Your task to perform on an android device: Do I have any events tomorrow? Image 0: 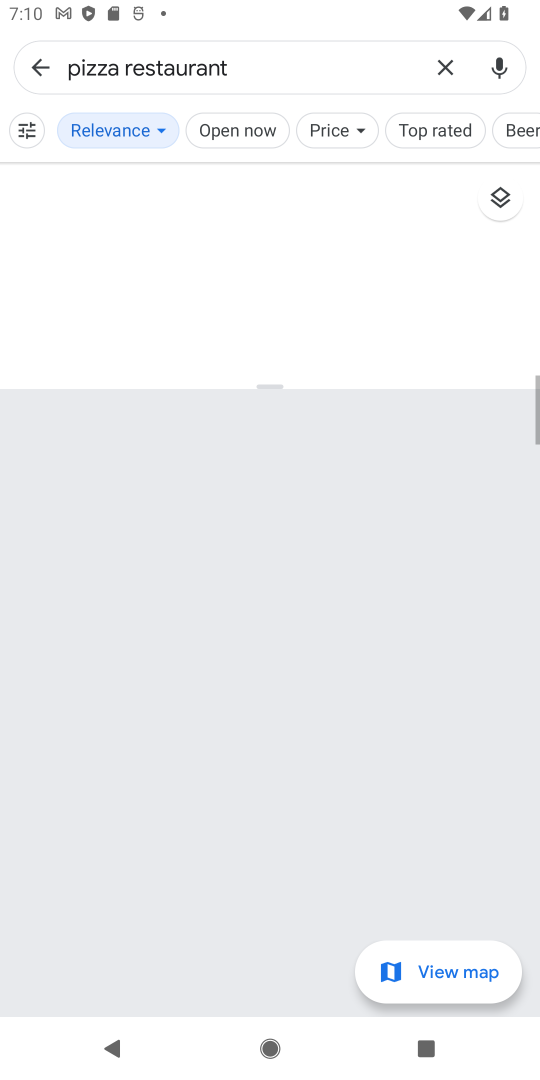
Step 0: press home button
Your task to perform on an android device: Do I have any events tomorrow? Image 1: 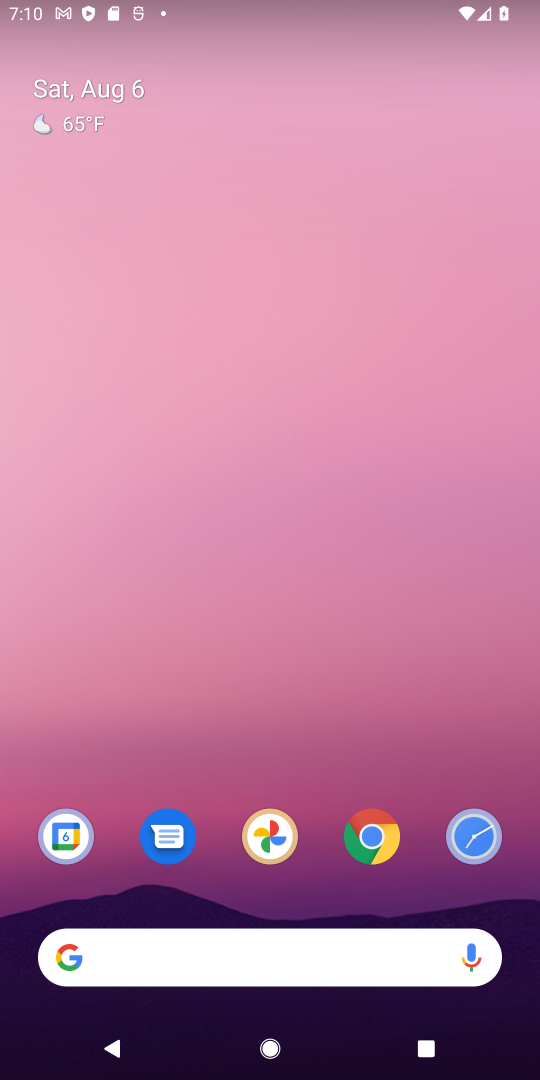
Step 1: drag from (448, 889) to (249, 255)
Your task to perform on an android device: Do I have any events tomorrow? Image 2: 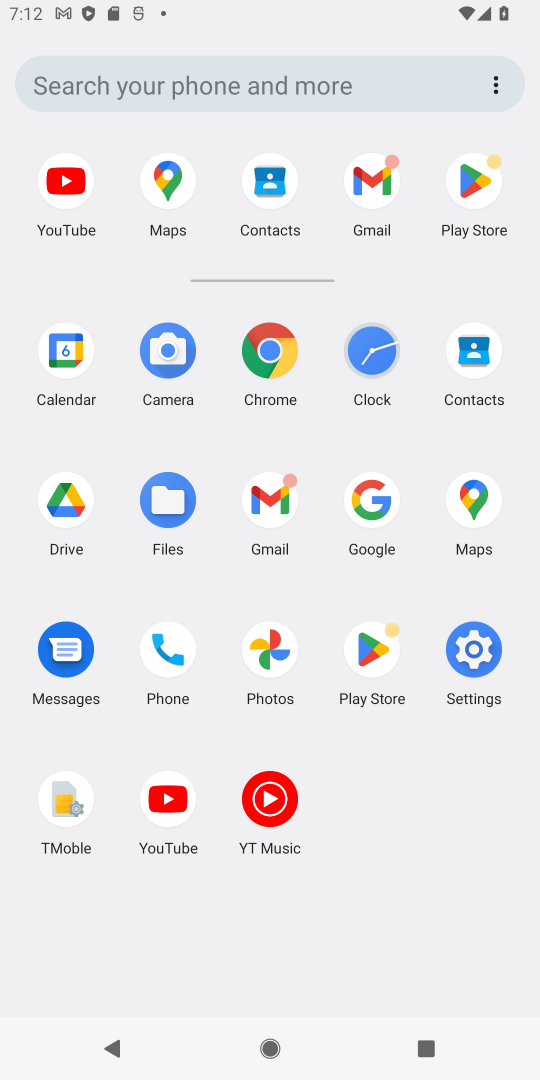
Step 2: click (42, 369)
Your task to perform on an android device: Do I have any events tomorrow? Image 3: 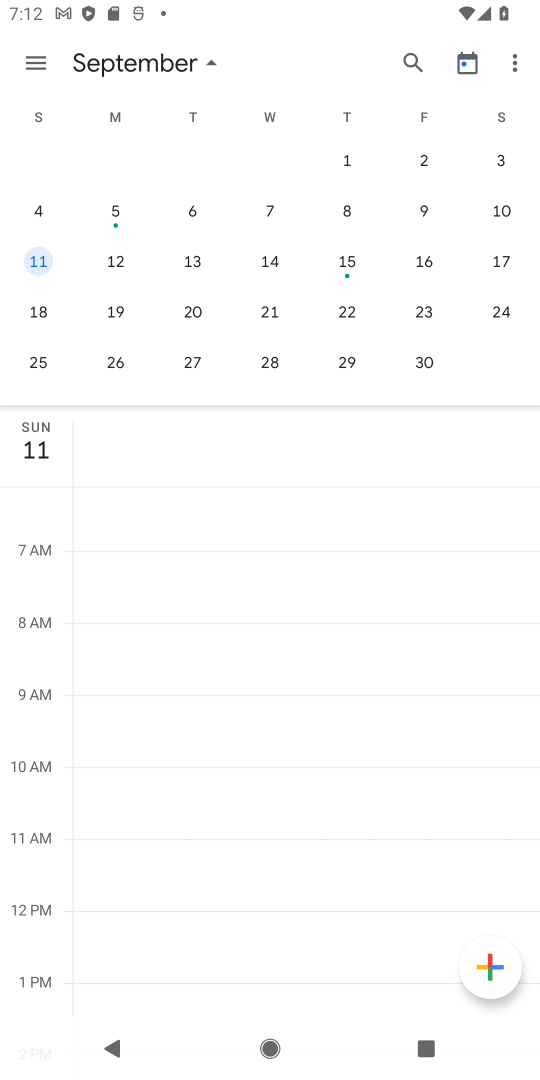
Step 3: task complete